Your task to perform on an android device: set the stopwatch Image 0: 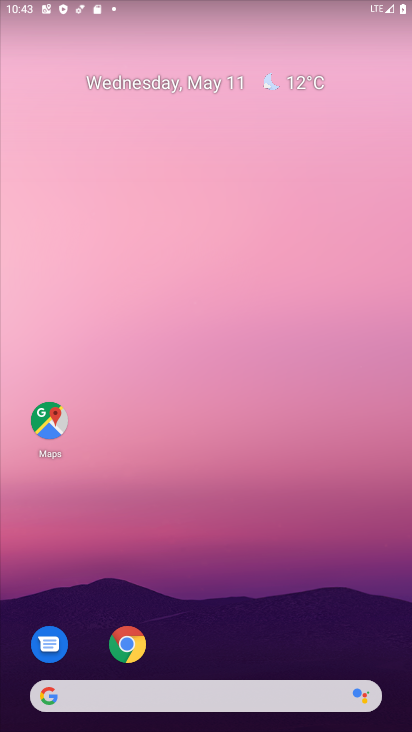
Step 0: drag from (303, 616) to (236, 146)
Your task to perform on an android device: set the stopwatch Image 1: 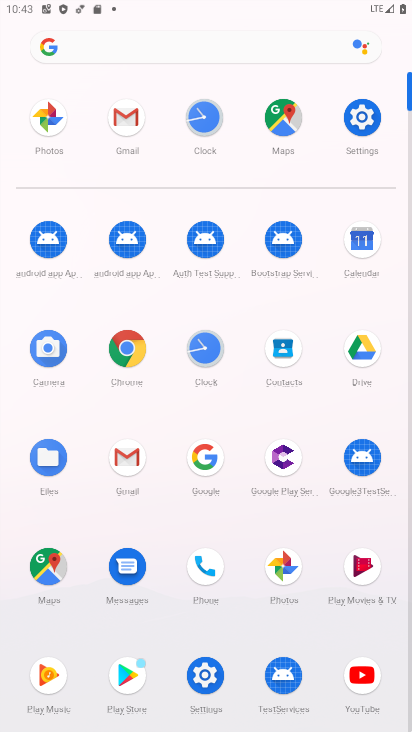
Step 1: click (352, 147)
Your task to perform on an android device: set the stopwatch Image 2: 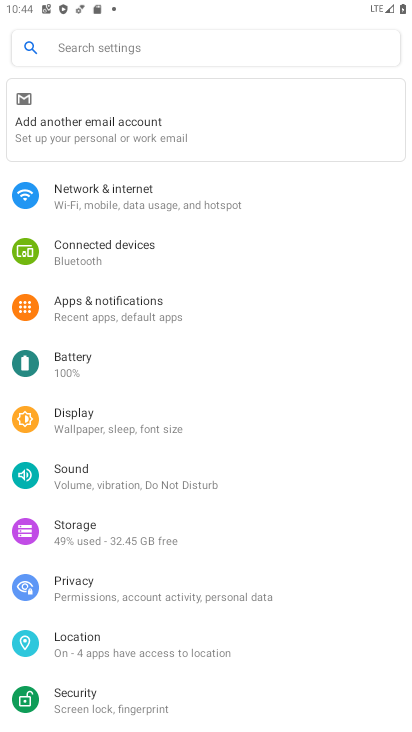
Step 2: press home button
Your task to perform on an android device: set the stopwatch Image 3: 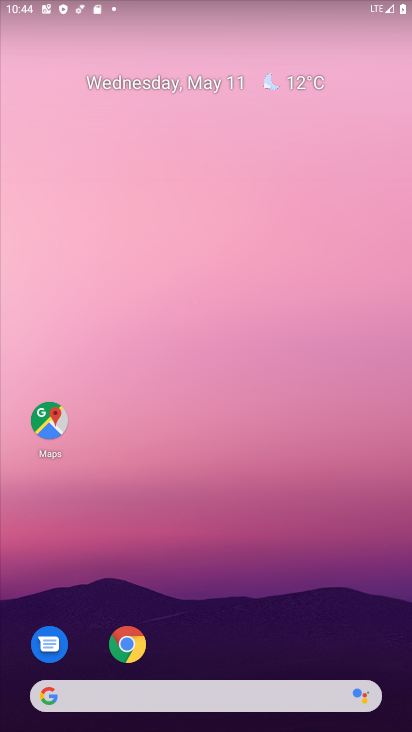
Step 3: drag from (264, 629) to (250, 302)
Your task to perform on an android device: set the stopwatch Image 4: 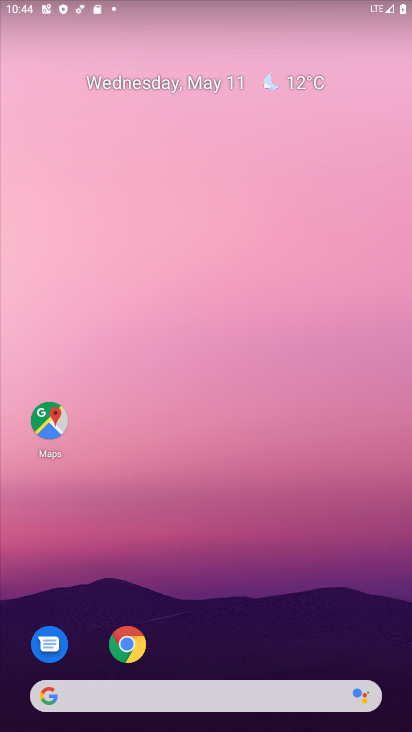
Step 4: drag from (251, 650) to (237, 103)
Your task to perform on an android device: set the stopwatch Image 5: 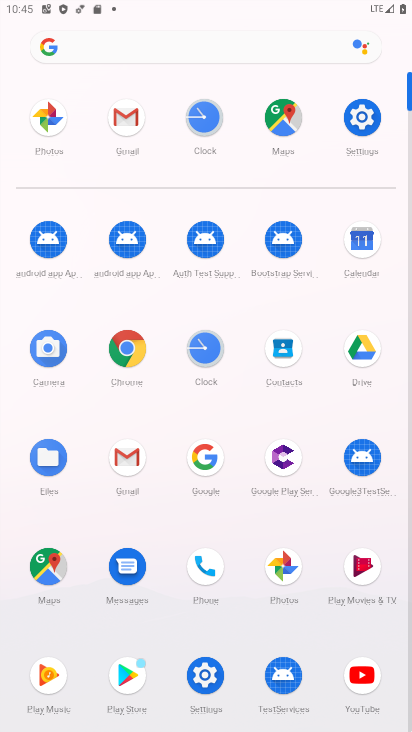
Step 5: click (197, 346)
Your task to perform on an android device: set the stopwatch Image 6: 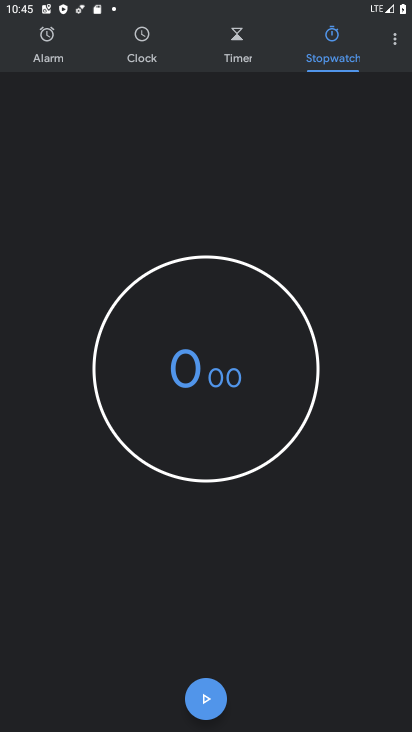
Step 6: task complete